Your task to perform on an android device: Check the weather Image 0: 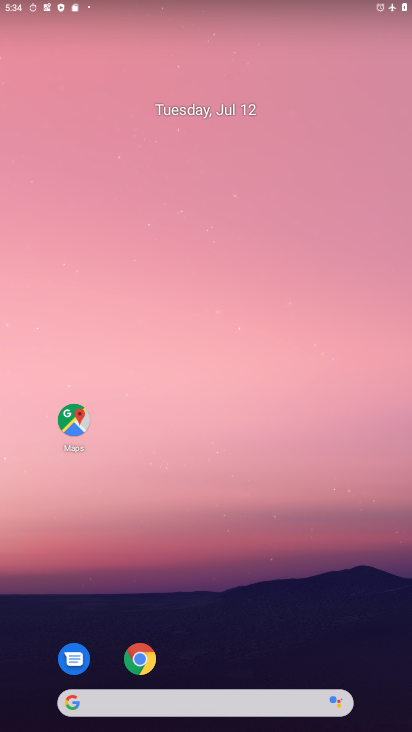
Step 0: click (188, 697)
Your task to perform on an android device: Check the weather Image 1: 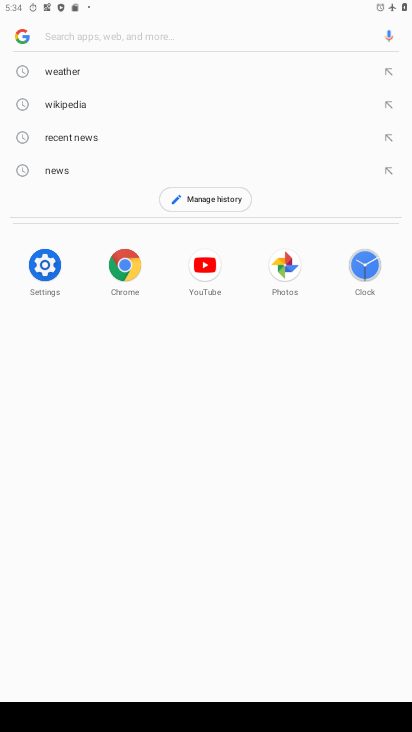
Step 1: click (77, 67)
Your task to perform on an android device: Check the weather Image 2: 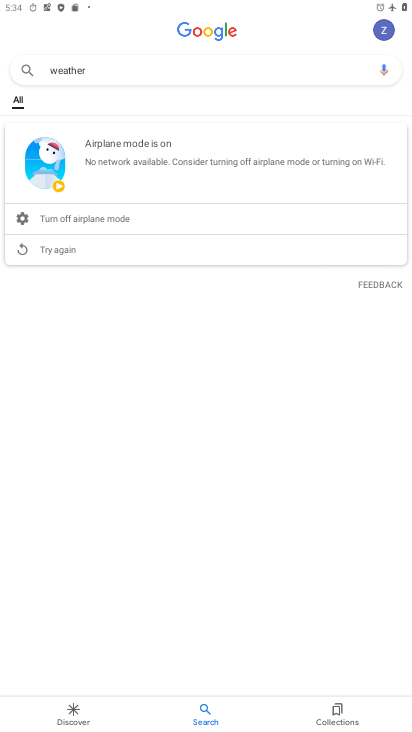
Step 2: task complete